Your task to perform on an android device: stop showing notifications on the lock screen Image 0: 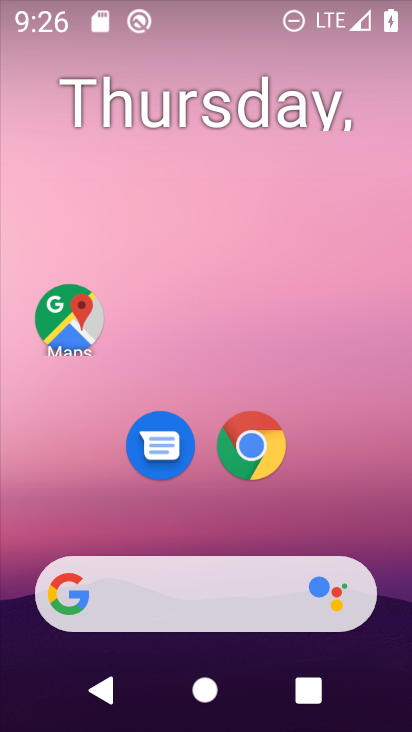
Step 0: drag from (398, 618) to (216, 69)
Your task to perform on an android device: stop showing notifications on the lock screen Image 1: 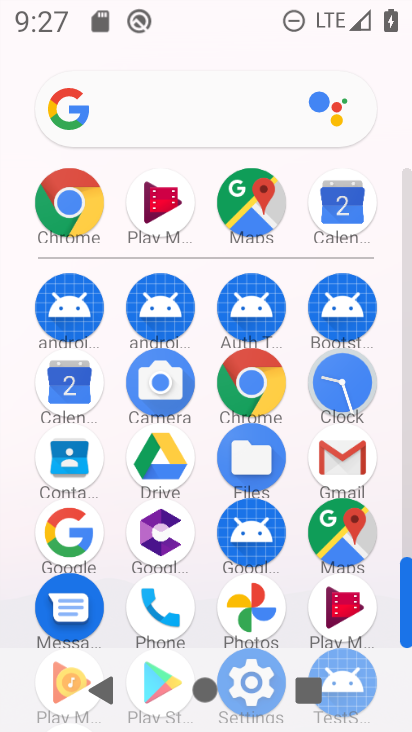
Step 1: drag from (201, 609) to (222, 255)
Your task to perform on an android device: stop showing notifications on the lock screen Image 2: 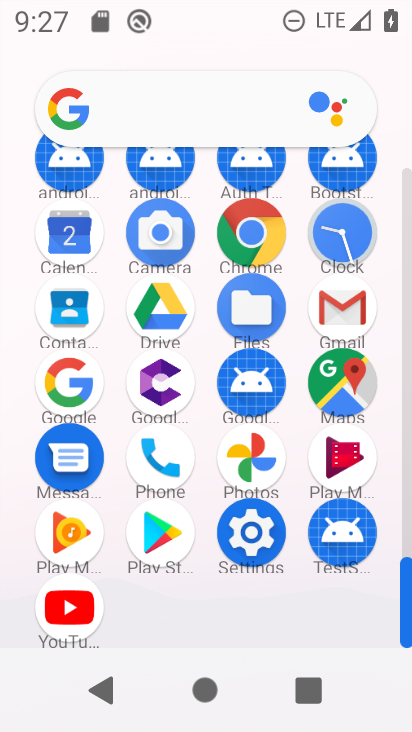
Step 2: click (253, 529)
Your task to perform on an android device: stop showing notifications on the lock screen Image 3: 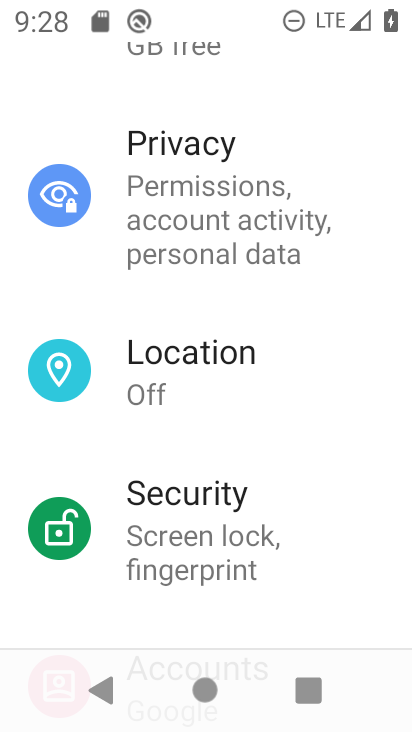
Step 3: drag from (175, 194) to (170, 631)
Your task to perform on an android device: stop showing notifications on the lock screen Image 4: 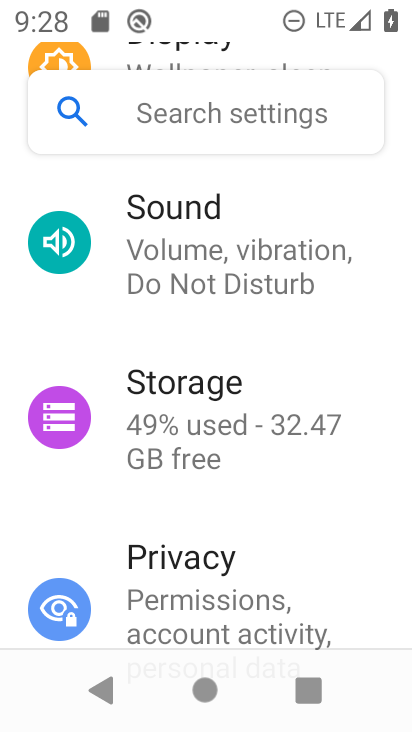
Step 4: drag from (148, 207) to (186, 635)
Your task to perform on an android device: stop showing notifications on the lock screen Image 5: 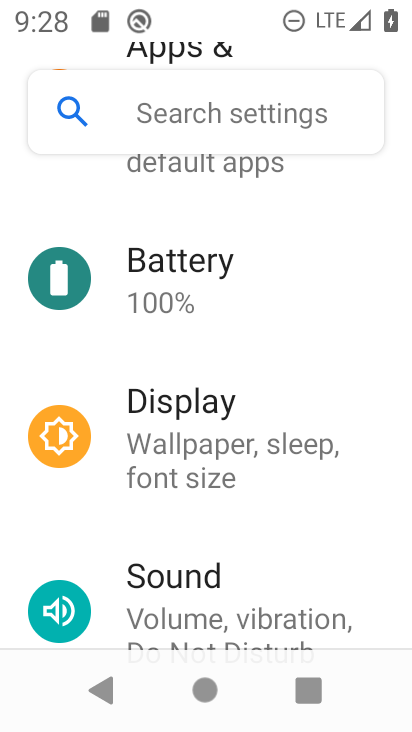
Step 5: drag from (128, 205) to (169, 527)
Your task to perform on an android device: stop showing notifications on the lock screen Image 6: 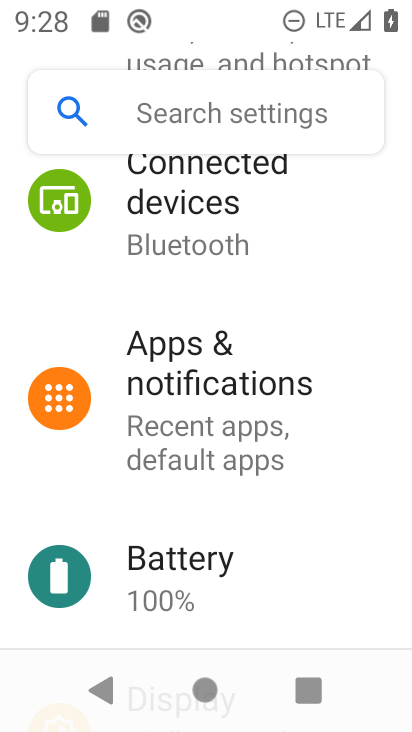
Step 6: click (248, 419)
Your task to perform on an android device: stop showing notifications on the lock screen Image 7: 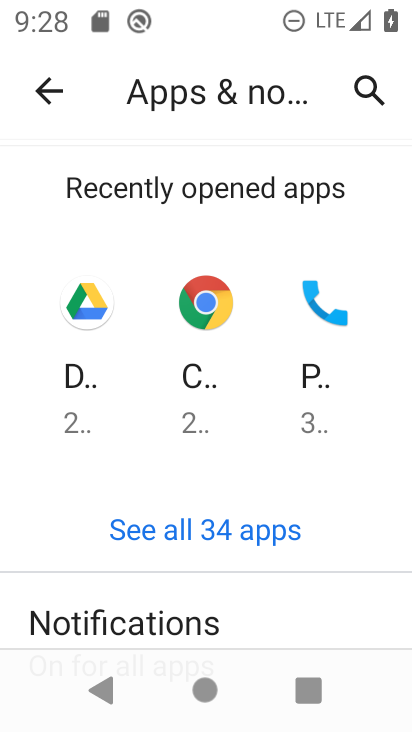
Step 7: click (199, 619)
Your task to perform on an android device: stop showing notifications on the lock screen Image 8: 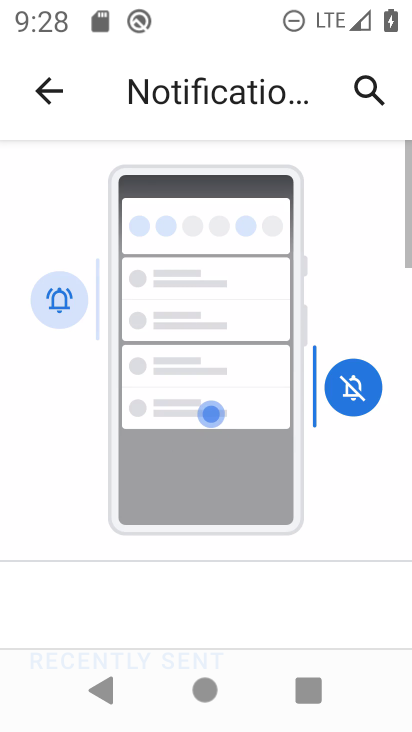
Step 8: drag from (199, 619) to (209, 73)
Your task to perform on an android device: stop showing notifications on the lock screen Image 9: 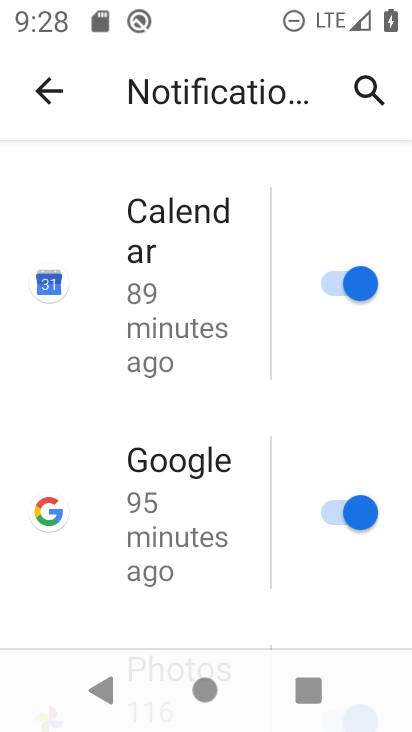
Step 9: click (139, 65)
Your task to perform on an android device: stop showing notifications on the lock screen Image 10: 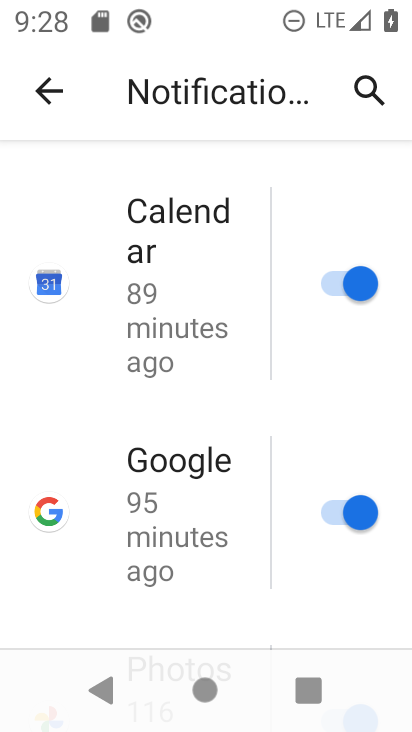
Step 10: drag from (143, 530) to (165, 91)
Your task to perform on an android device: stop showing notifications on the lock screen Image 11: 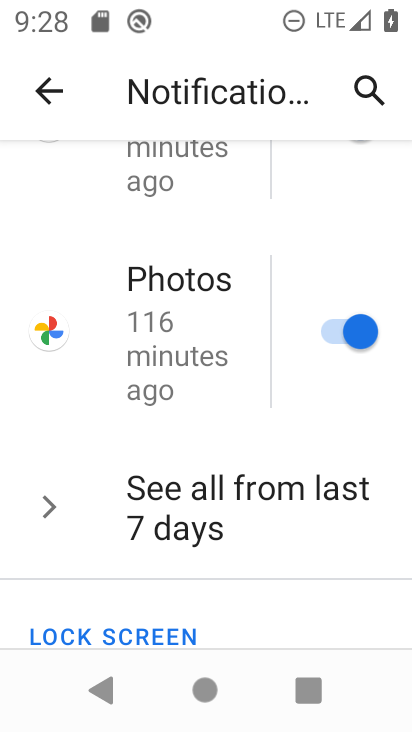
Step 11: drag from (140, 562) to (232, 150)
Your task to perform on an android device: stop showing notifications on the lock screen Image 12: 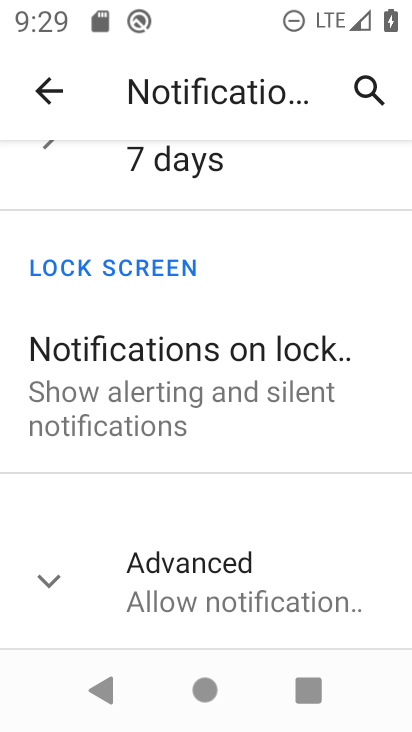
Step 12: click (229, 416)
Your task to perform on an android device: stop showing notifications on the lock screen Image 13: 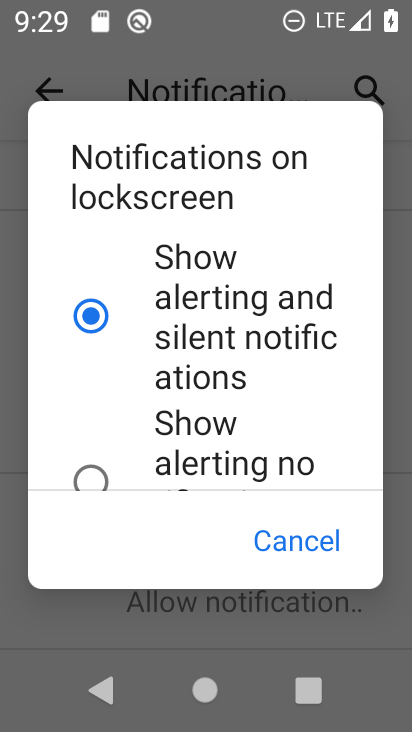
Step 13: click (174, 165)
Your task to perform on an android device: stop showing notifications on the lock screen Image 14: 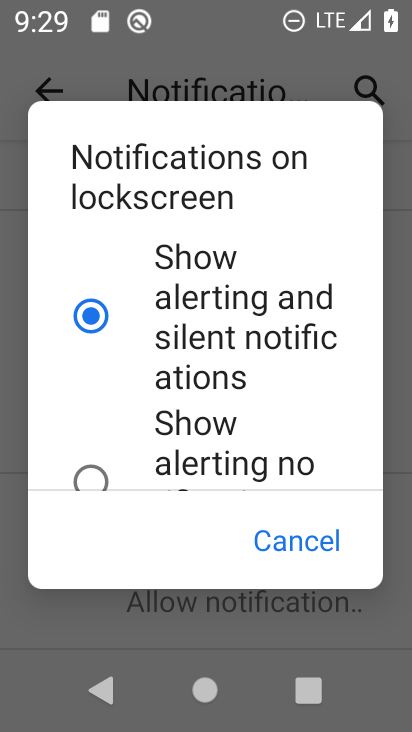
Step 14: drag from (150, 405) to (167, 323)
Your task to perform on an android device: stop showing notifications on the lock screen Image 15: 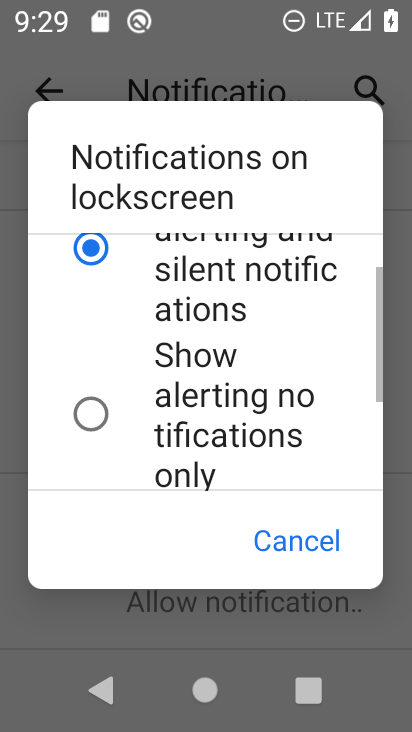
Step 15: drag from (168, 210) to (168, 137)
Your task to perform on an android device: stop showing notifications on the lock screen Image 16: 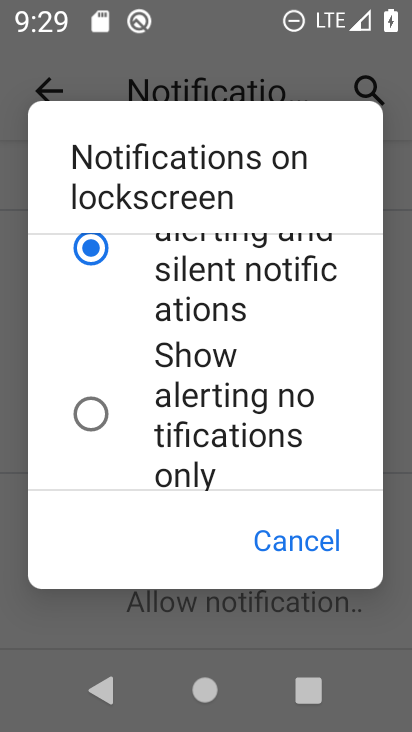
Step 16: drag from (111, 429) to (152, 177)
Your task to perform on an android device: stop showing notifications on the lock screen Image 17: 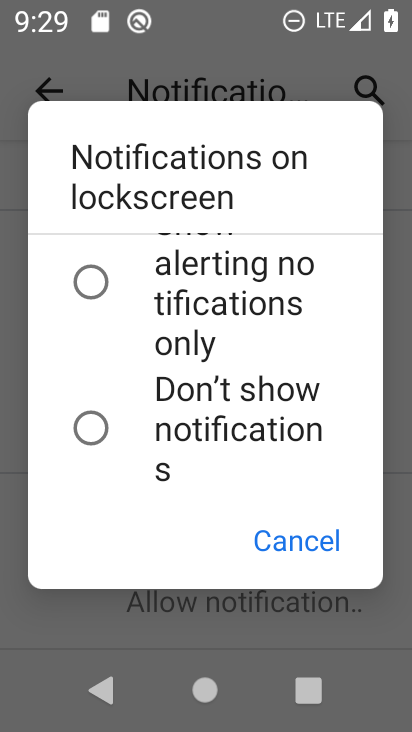
Step 17: click (90, 423)
Your task to perform on an android device: stop showing notifications on the lock screen Image 18: 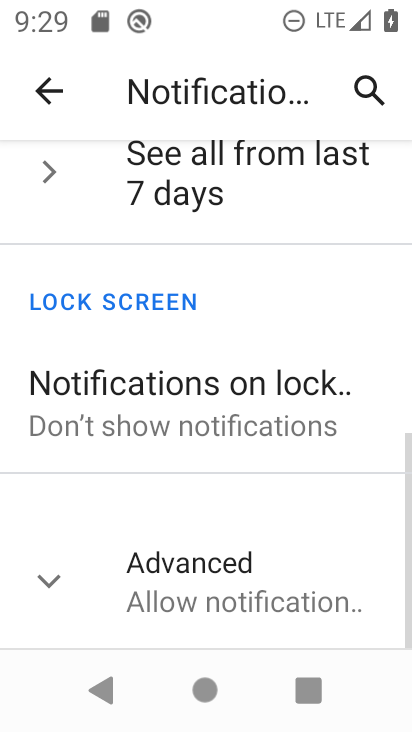
Step 18: task complete